Your task to perform on an android device: allow cookies in the chrome app Image 0: 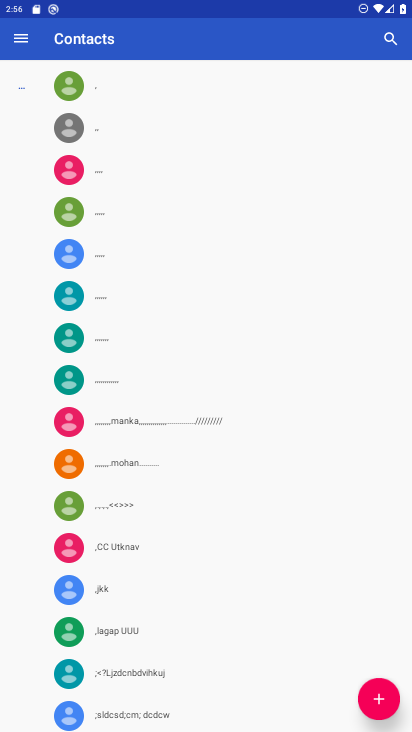
Step 0: press home button
Your task to perform on an android device: allow cookies in the chrome app Image 1: 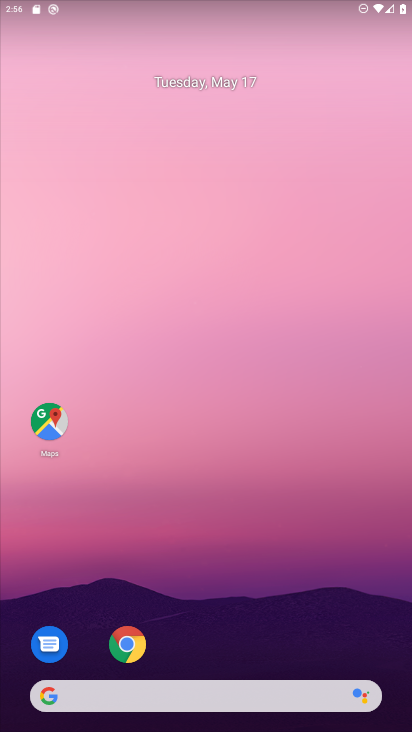
Step 1: click (135, 649)
Your task to perform on an android device: allow cookies in the chrome app Image 2: 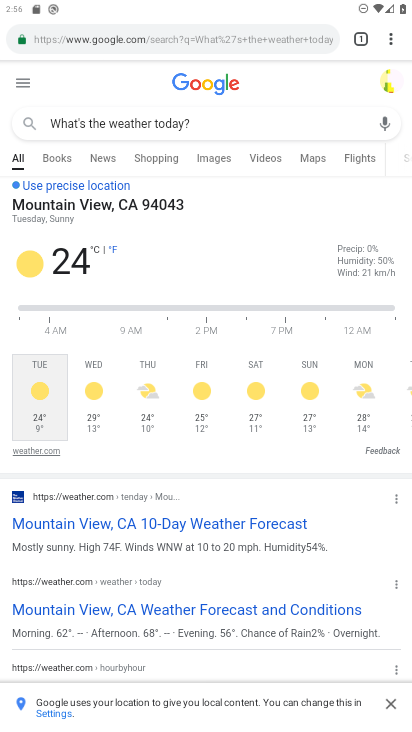
Step 2: click (385, 40)
Your task to perform on an android device: allow cookies in the chrome app Image 3: 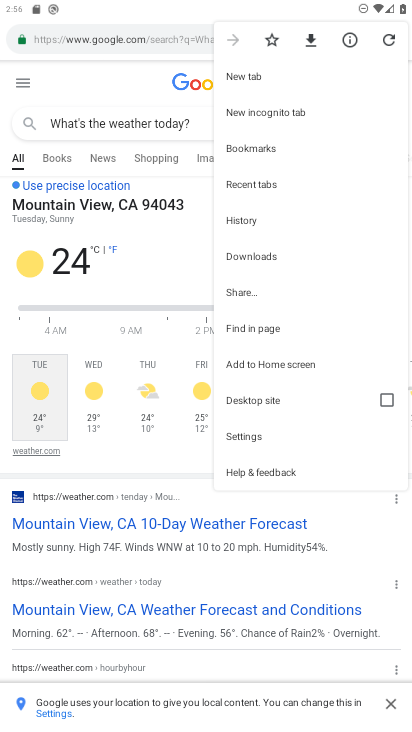
Step 3: click (297, 214)
Your task to perform on an android device: allow cookies in the chrome app Image 4: 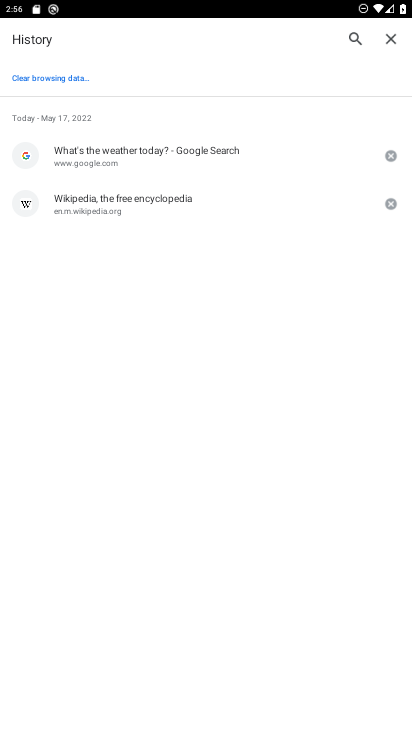
Step 4: click (67, 79)
Your task to perform on an android device: allow cookies in the chrome app Image 5: 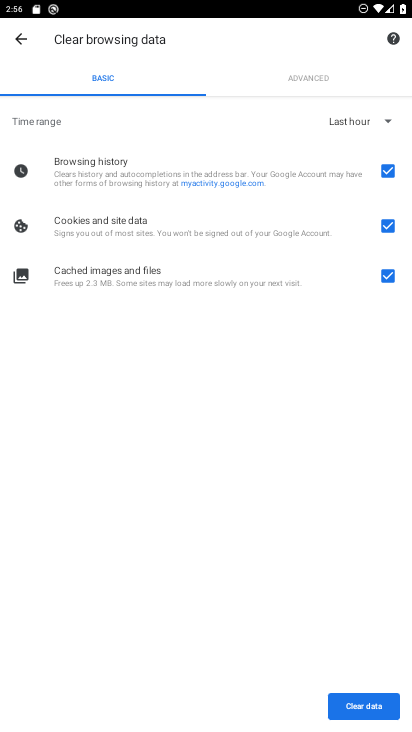
Step 5: click (386, 276)
Your task to perform on an android device: allow cookies in the chrome app Image 6: 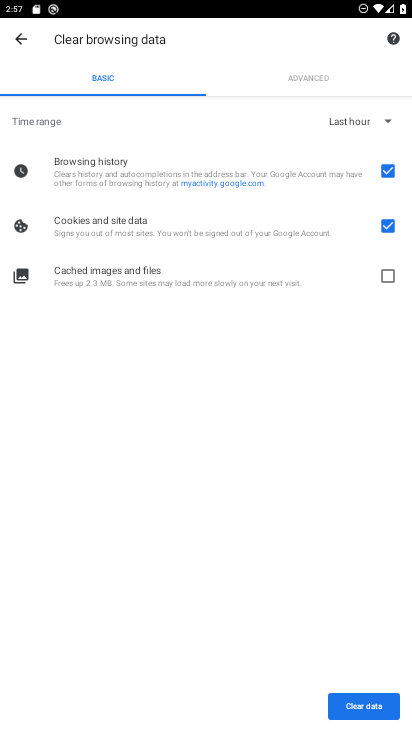
Step 6: click (387, 172)
Your task to perform on an android device: allow cookies in the chrome app Image 7: 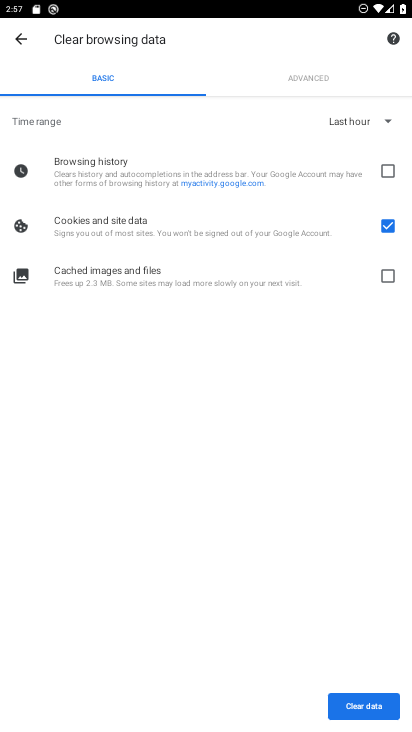
Step 7: click (367, 701)
Your task to perform on an android device: allow cookies in the chrome app Image 8: 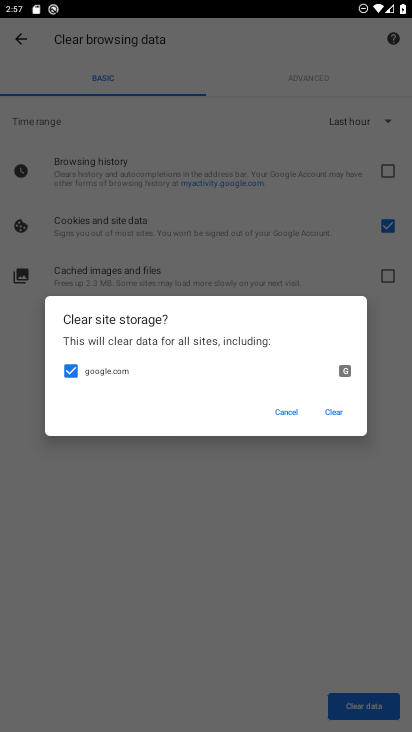
Step 8: click (334, 408)
Your task to perform on an android device: allow cookies in the chrome app Image 9: 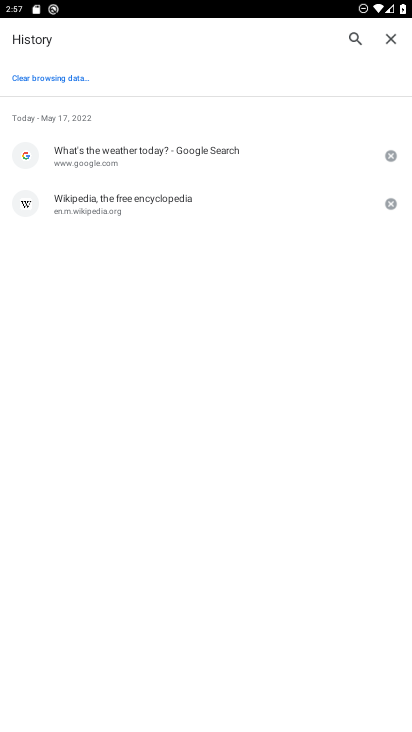
Step 9: task complete